Your task to perform on an android device: Open notification settings Image 0: 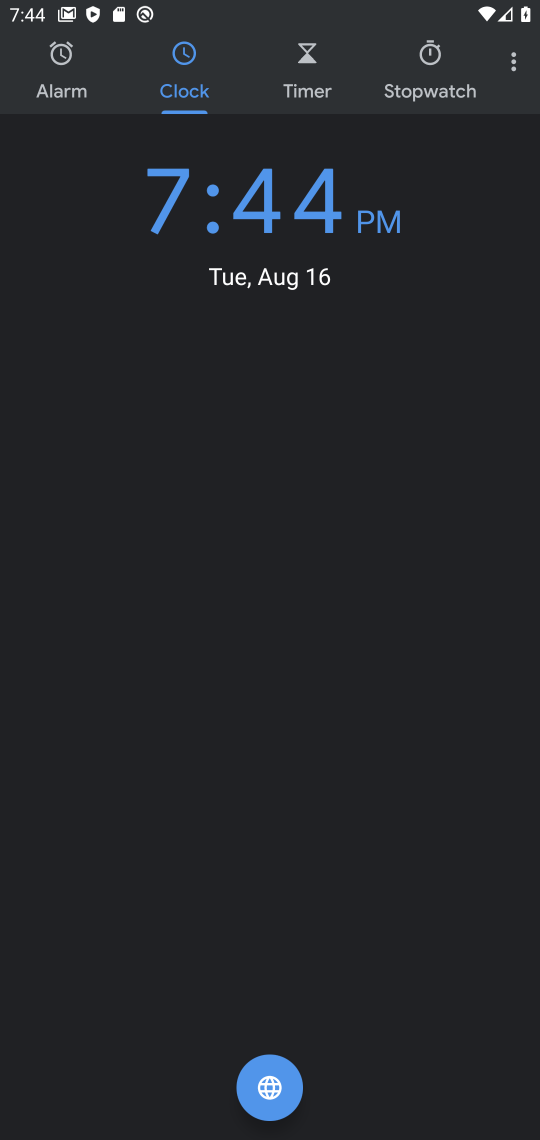
Step 0: press home button
Your task to perform on an android device: Open notification settings Image 1: 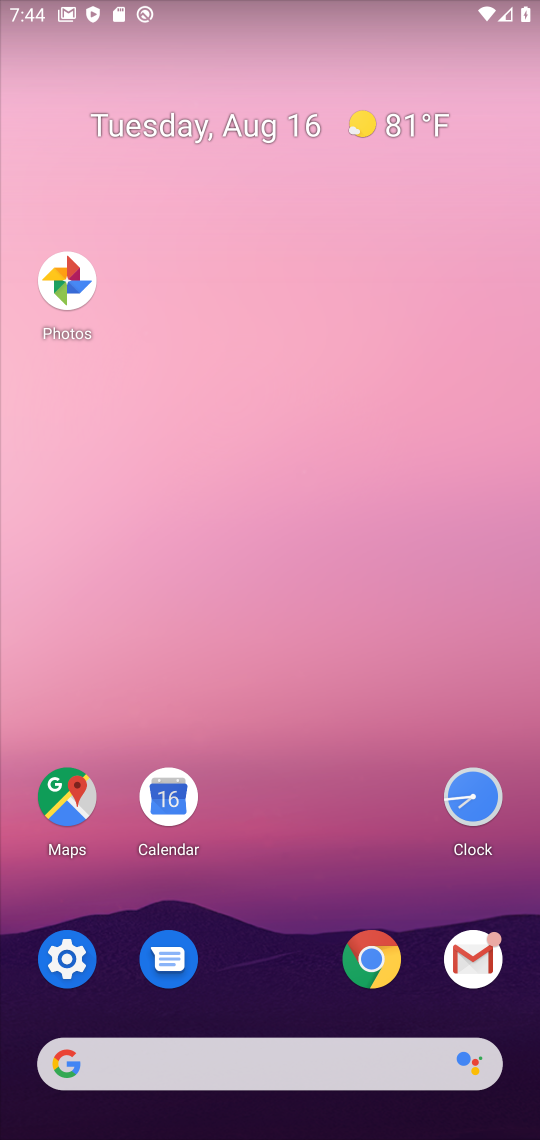
Step 1: click (56, 964)
Your task to perform on an android device: Open notification settings Image 2: 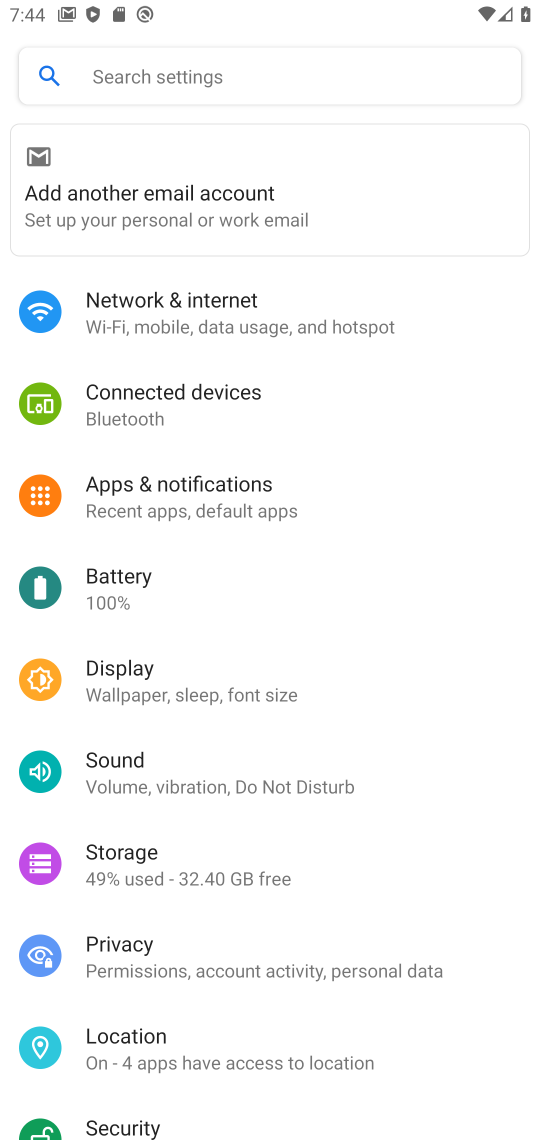
Step 2: click (183, 486)
Your task to perform on an android device: Open notification settings Image 3: 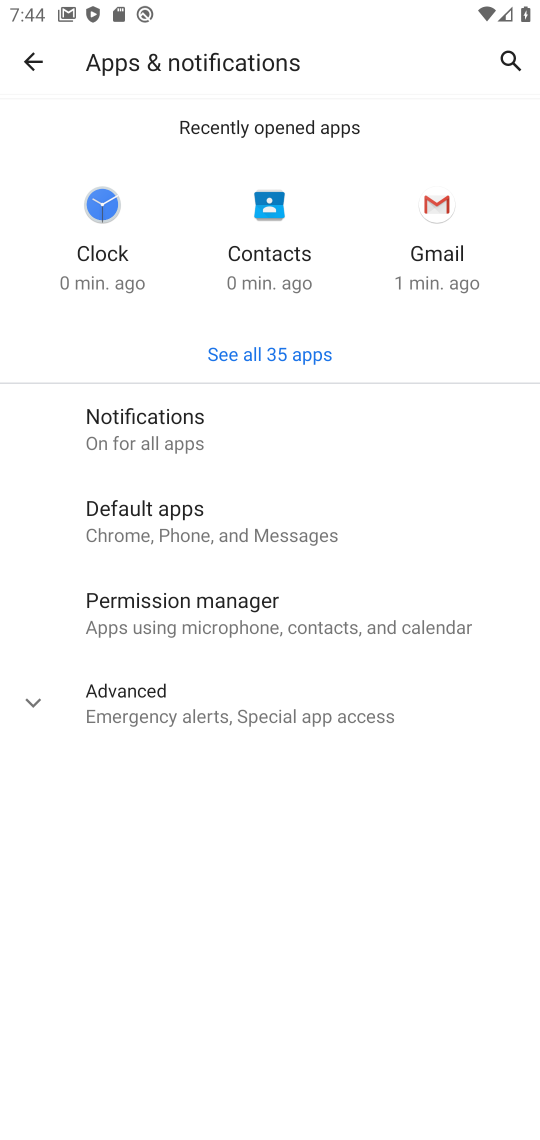
Step 3: task complete